Your task to perform on an android device: Open the map Image 0: 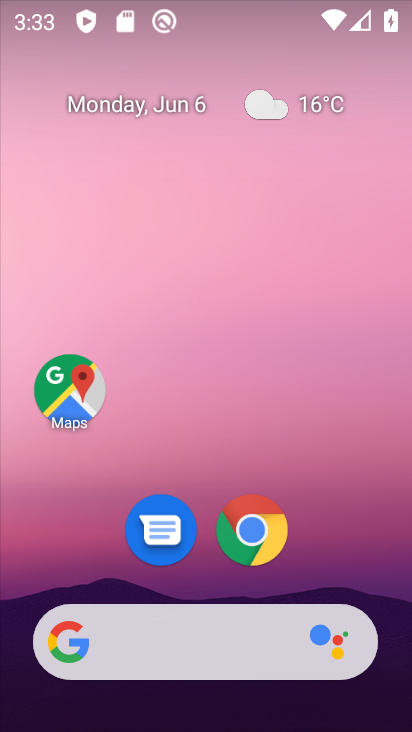
Step 0: click (60, 382)
Your task to perform on an android device: Open the map Image 1: 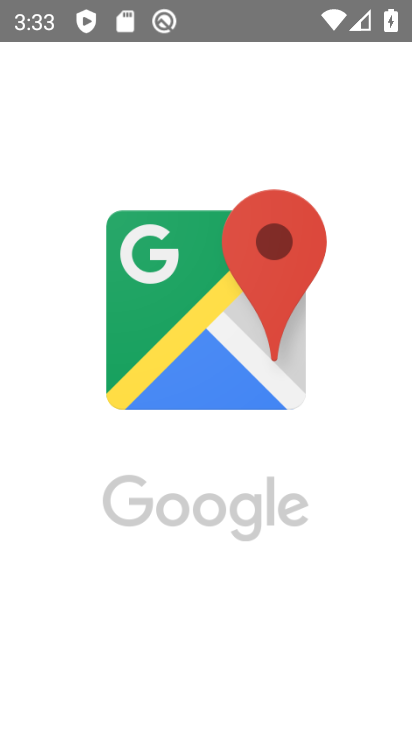
Step 1: task complete